Your task to perform on an android device: What's the weather going to be this weekend? Image 0: 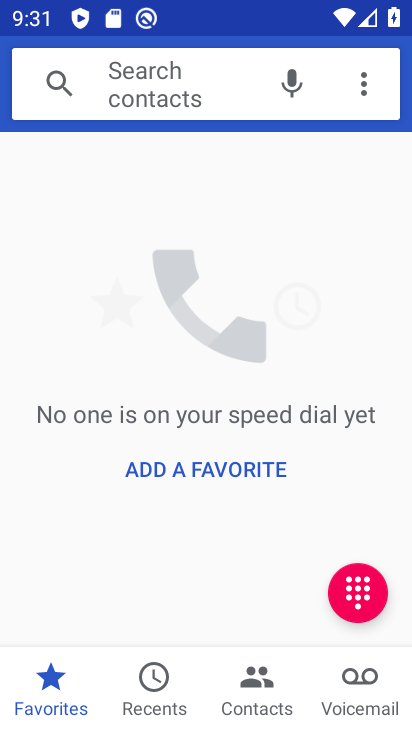
Step 0: press home button
Your task to perform on an android device: What's the weather going to be this weekend? Image 1: 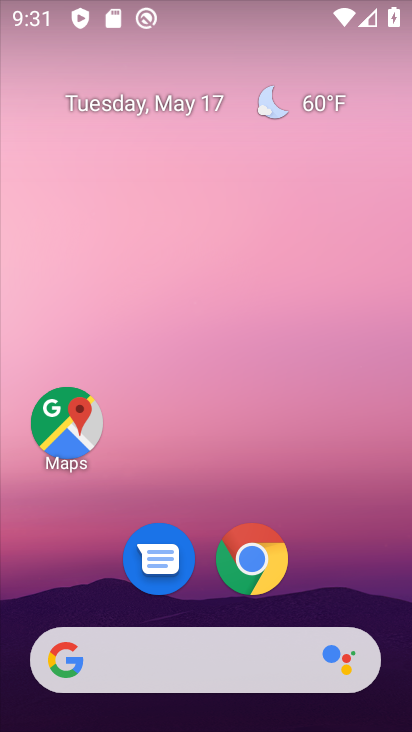
Step 1: click (329, 101)
Your task to perform on an android device: What's the weather going to be this weekend? Image 2: 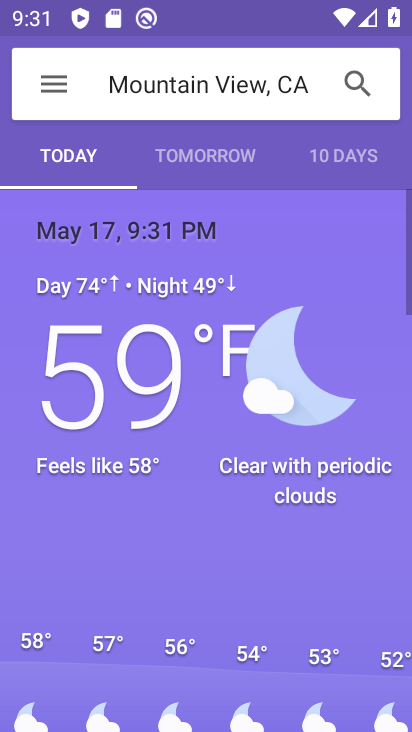
Step 2: click (329, 162)
Your task to perform on an android device: What's the weather going to be this weekend? Image 3: 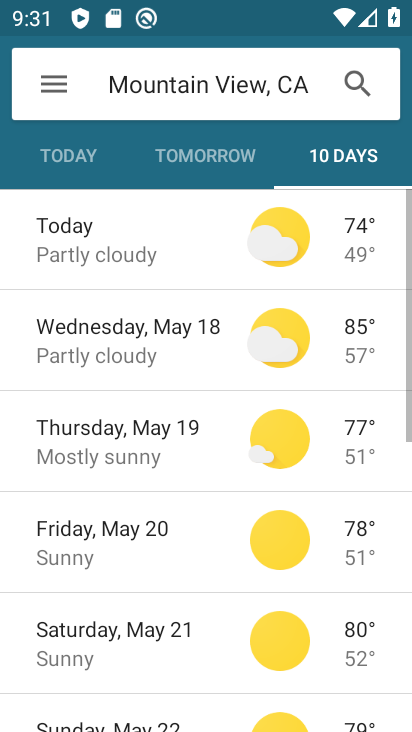
Step 3: task complete